Your task to perform on an android device: Go to sound settings Image 0: 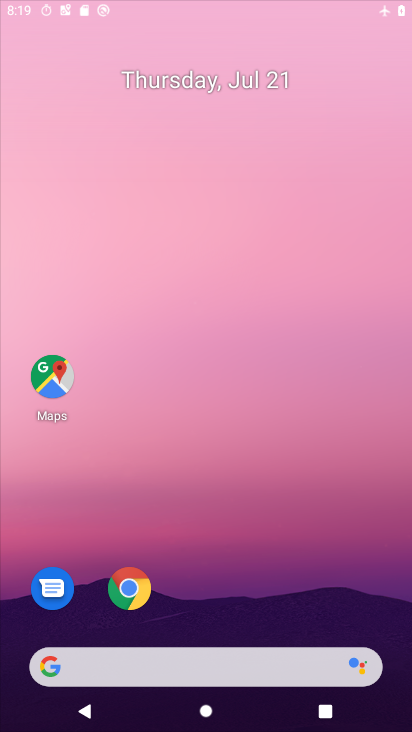
Step 0: click (283, 206)
Your task to perform on an android device: Go to sound settings Image 1: 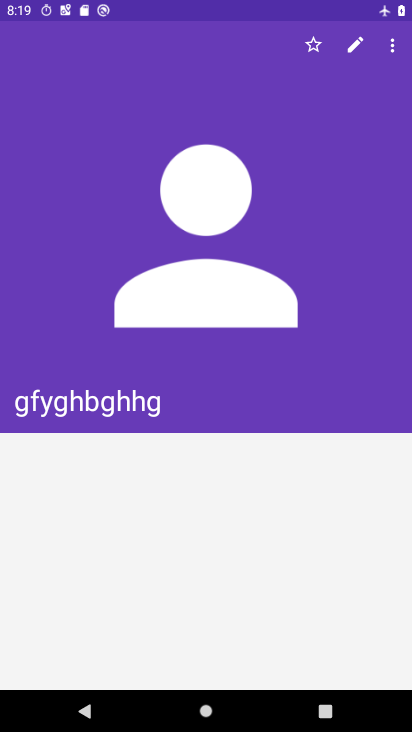
Step 1: drag from (279, 672) to (243, 271)
Your task to perform on an android device: Go to sound settings Image 2: 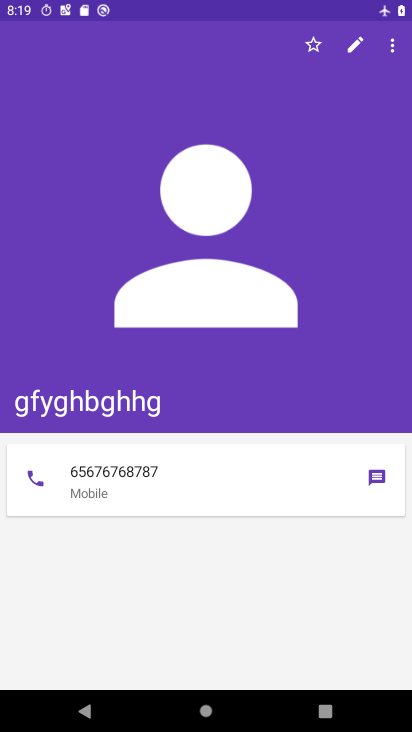
Step 2: press back button
Your task to perform on an android device: Go to sound settings Image 3: 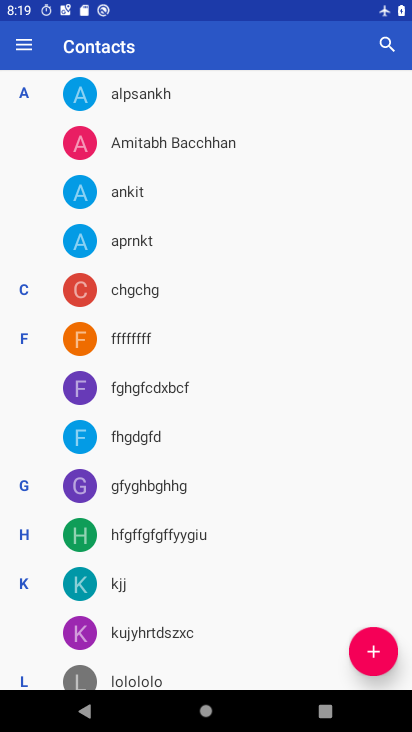
Step 3: press back button
Your task to perform on an android device: Go to sound settings Image 4: 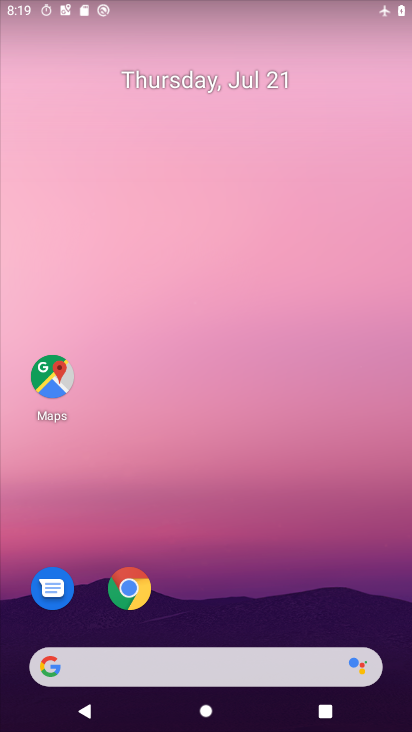
Step 4: drag from (242, 627) to (244, 392)
Your task to perform on an android device: Go to sound settings Image 5: 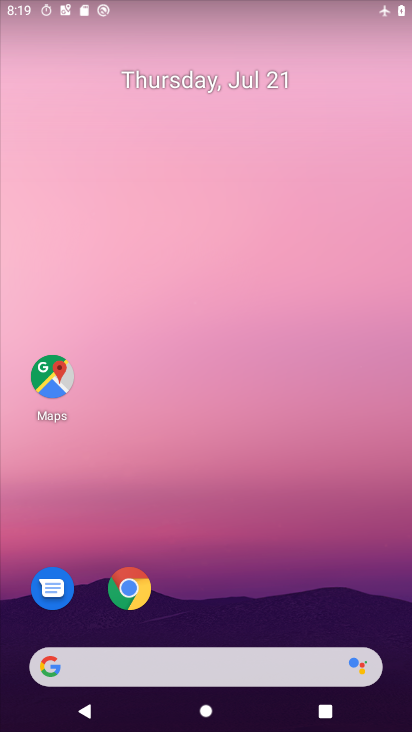
Step 5: drag from (228, 673) to (241, 353)
Your task to perform on an android device: Go to sound settings Image 6: 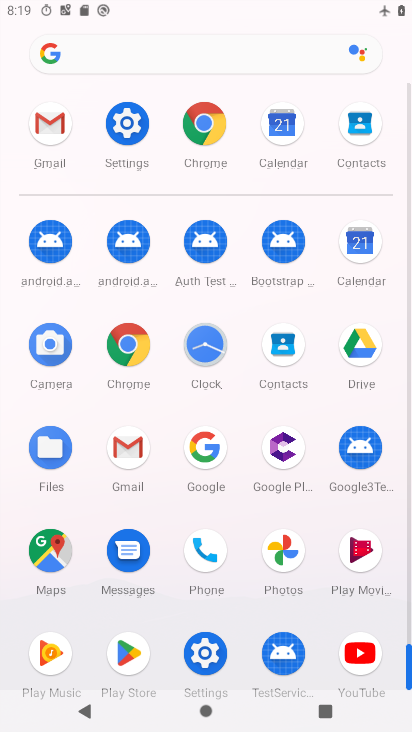
Step 6: click (205, 658)
Your task to perform on an android device: Go to sound settings Image 7: 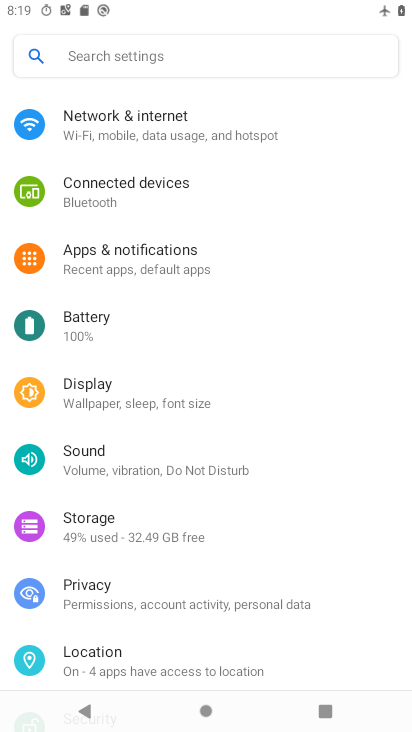
Step 7: click (86, 465)
Your task to perform on an android device: Go to sound settings Image 8: 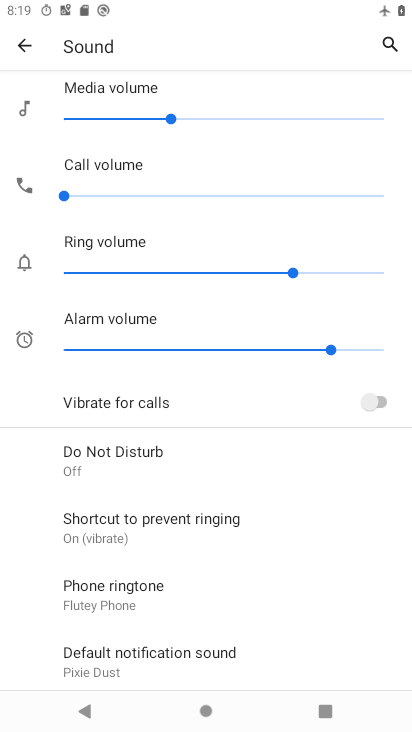
Step 8: task complete